Your task to perform on an android device: set the timer Image 0: 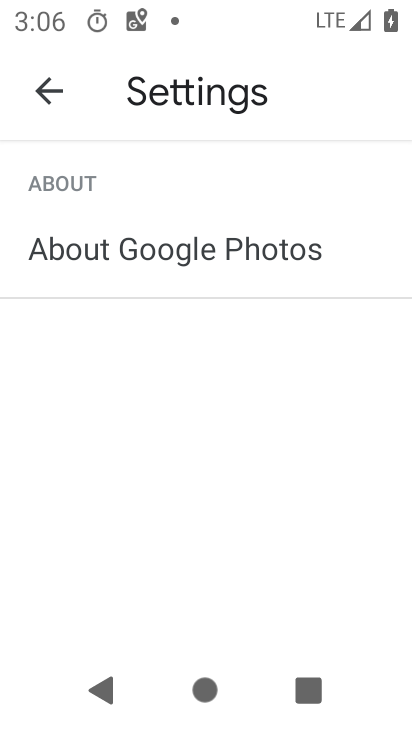
Step 0: press home button
Your task to perform on an android device: set the timer Image 1: 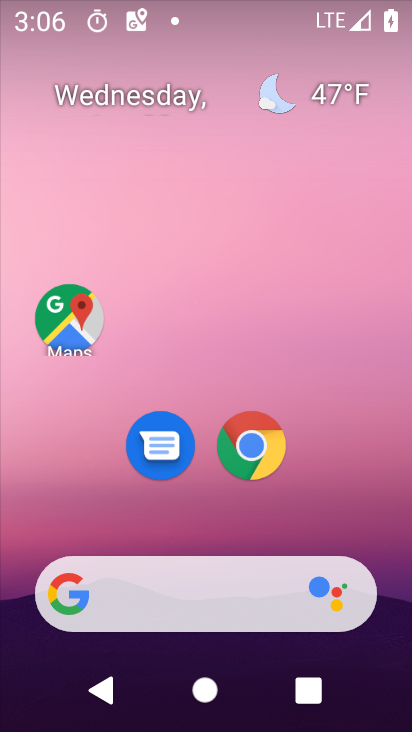
Step 1: drag from (382, 522) to (370, 8)
Your task to perform on an android device: set the timer Image 2: 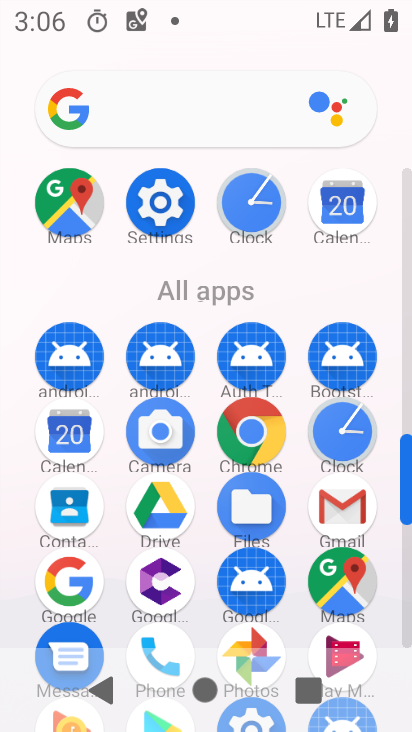
Step 2: click (257, 208)
Your task to perform on an android device: set the timer Image 3: 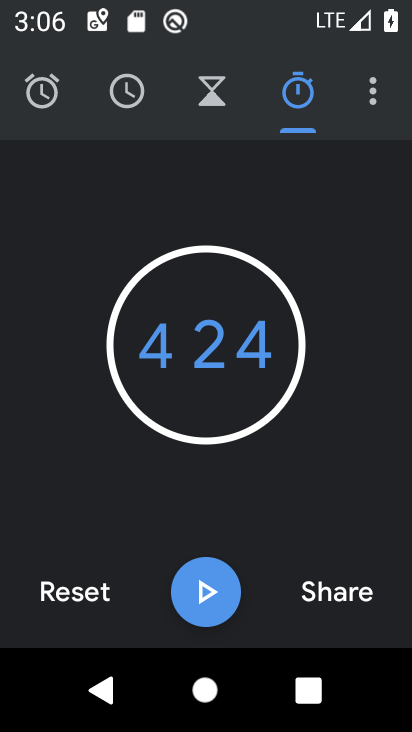
Step 3: click (376, 94)
Your task to perform on an android device: set the timer Image 4: 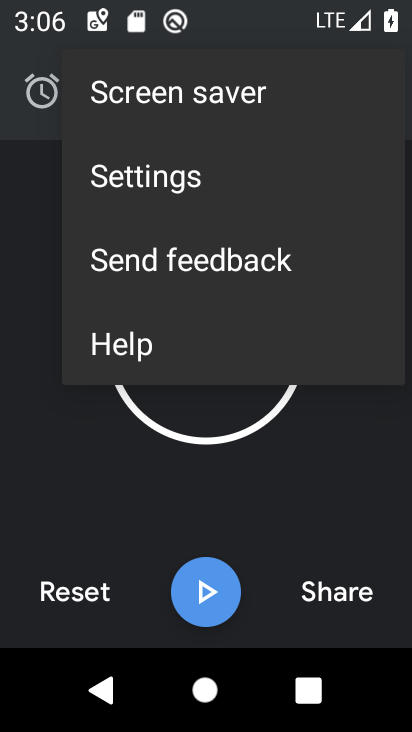
Step 4: click (45, 172)
Your task to perform on an android device: set the timer Image 5: 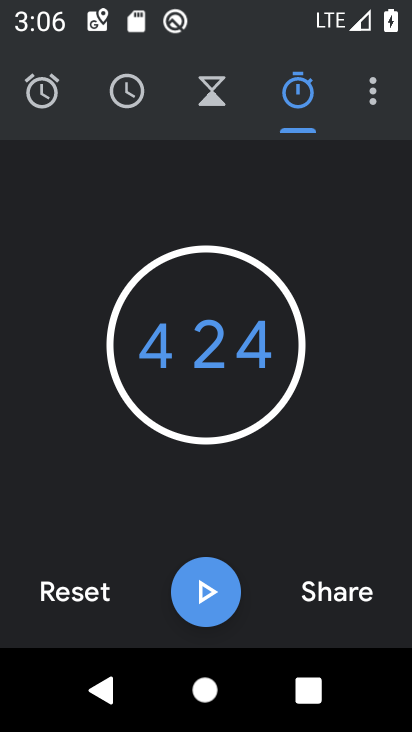
Step 5: click (218, 104)
Your task to perform on an android device: set the timer Image 6: 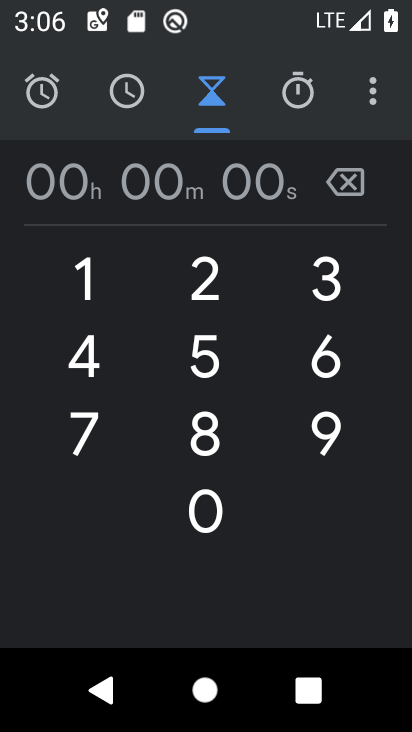
Step 6: click (199, 292)
Your task to perform on an android device: set the timer Image 7: 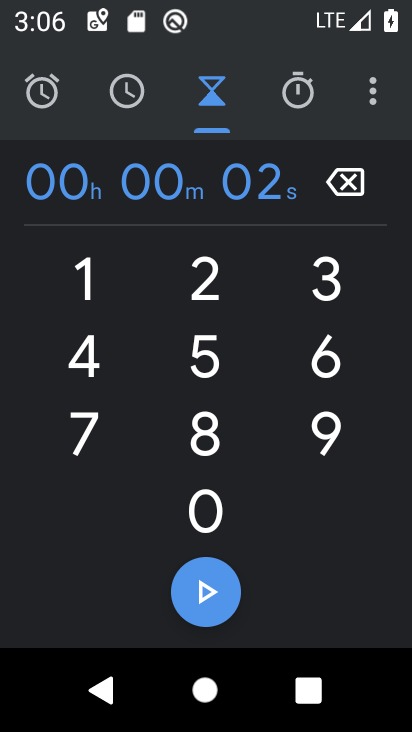
Step 7: click (211, 364)
Your task to perform on an android device: set the timer Image 8: 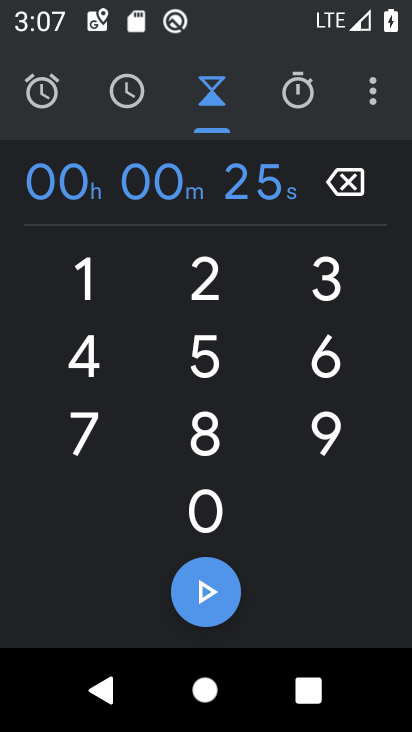
Step 8: click (94, 274)
Your task to perform on an android device: set the timer Image 9: 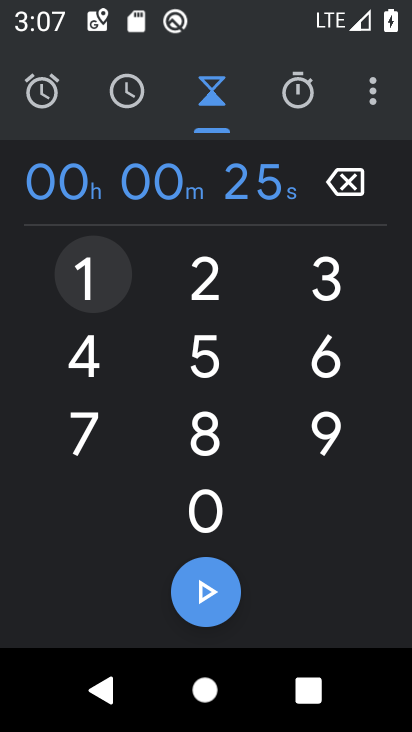
Step 9: click (199, 355)
Your task to perform on an android device: set the timer Image 10: 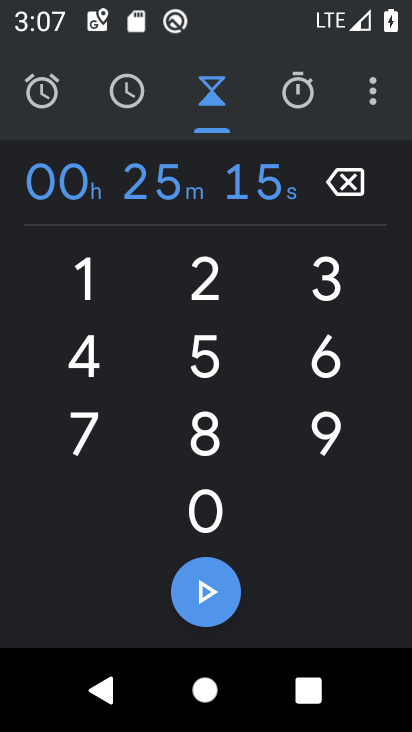
Step 10: click (218, 598)
Your task to perform on an android device: set the timer Image 11: 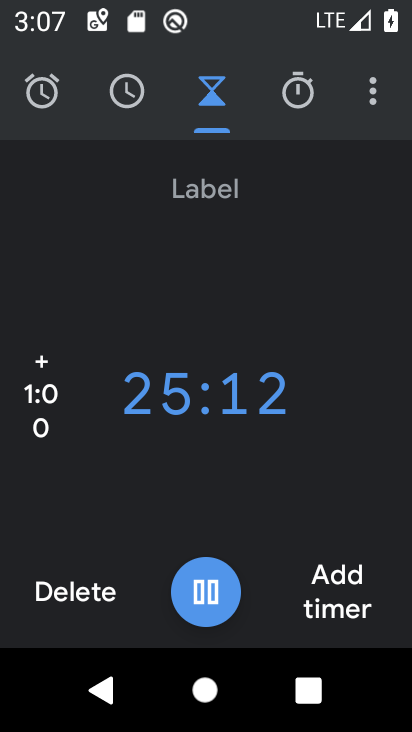
Step 11: task complete